Your task to perform on an android device: toggle airplane mode Image 0: 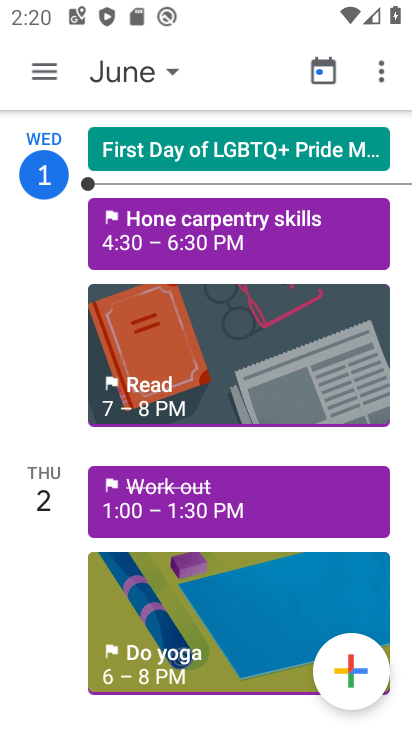
Step 0: drag from (119, 675) to (349, 106)
Your task to perform on an android device: toggle airplane mode Image 1: 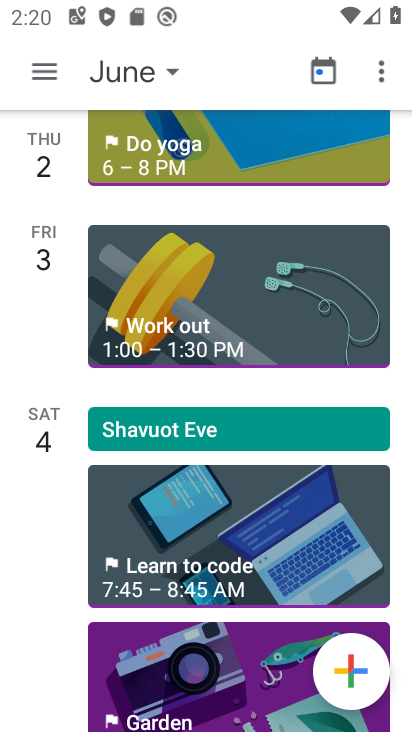
Step 1: press home button
Your task to perform on an android device: toggle airplane mode Image 2: 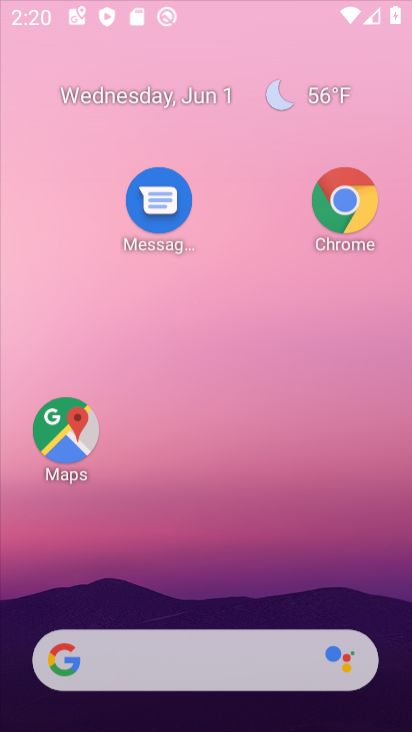
Step 2: drag from (107, 640) to (295, 12)
Your task to perform on an android device: toggle airplane mode Image 3: 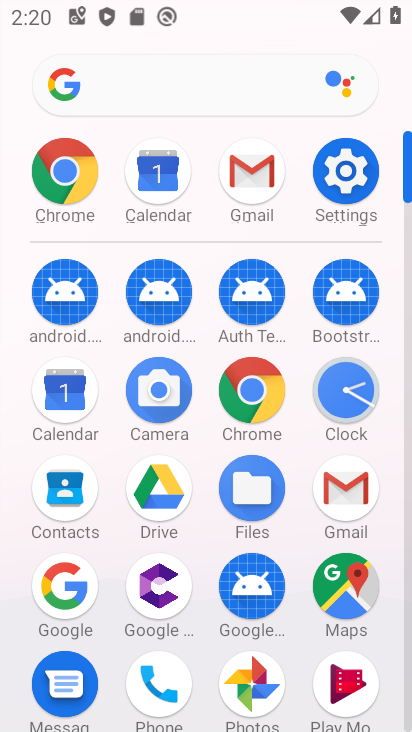
Step 3: click (362, 172)
Your task to perform on an android device: toggle airplane mode Image 4: 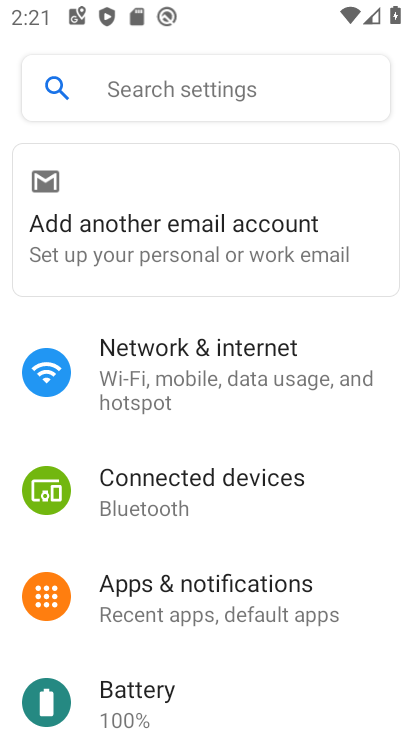
Step 4: click (235, 371)
Your task to perform on an android device: toggle airplane mode Image 5: 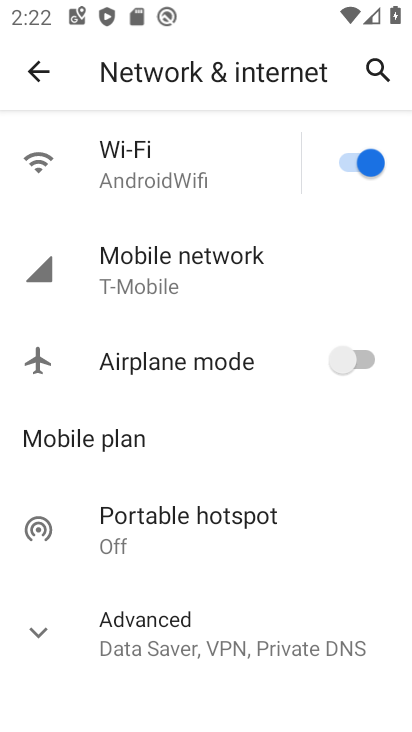
Step 5: click (230, 357)
Your task to perform on an android device: toggle airplane mode Image 6: 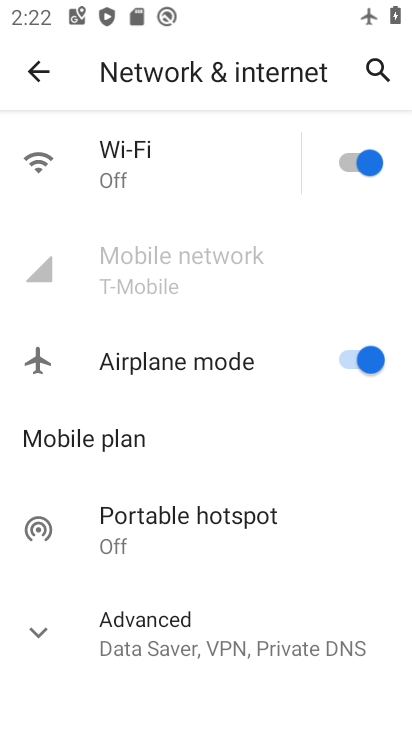
Step 6: task complete